Your task to perform on an android device: Add jbl flip 4 to the cart on newegg.com Image 0: 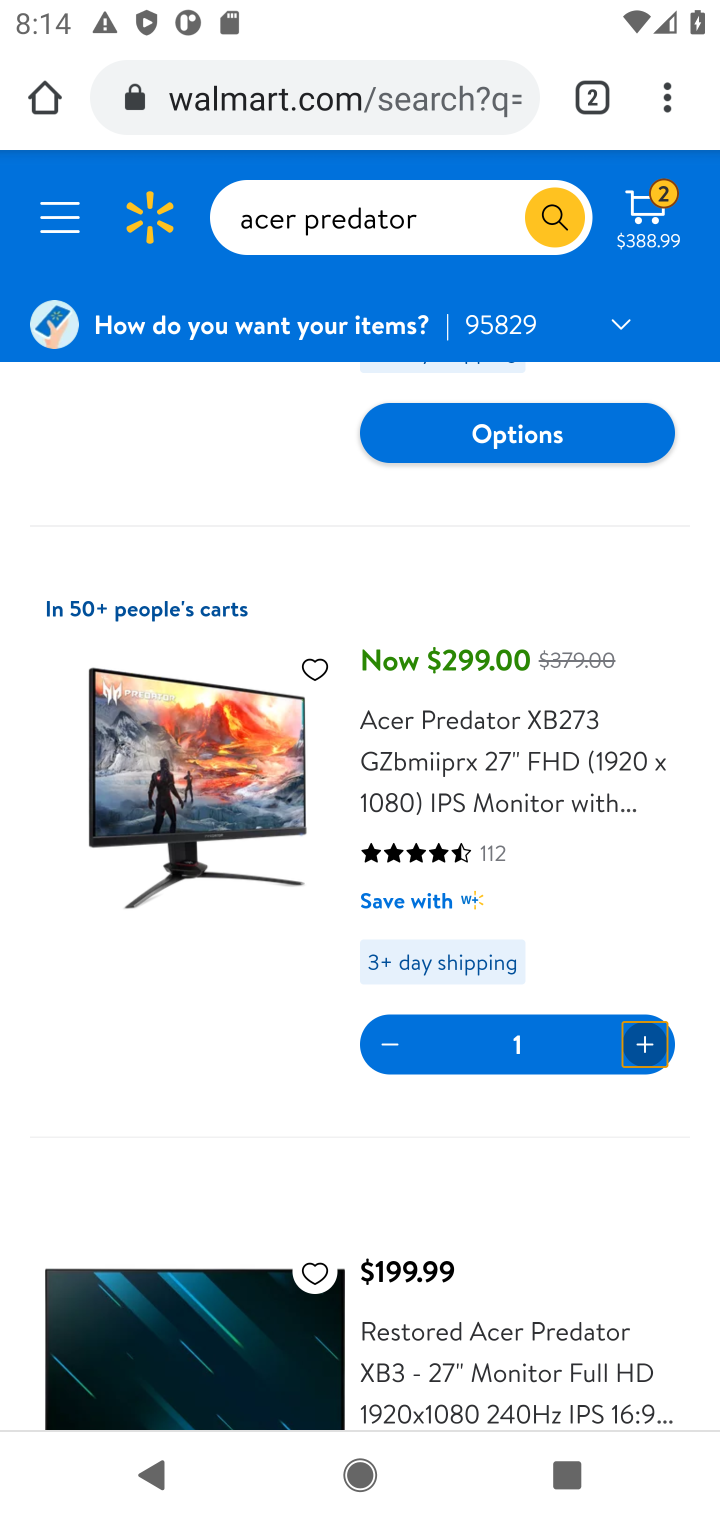
Step 0: click (315, 107)
Your task to perform on an android device: Add jbl flip 4 to the cart on newegg.com Image 1: 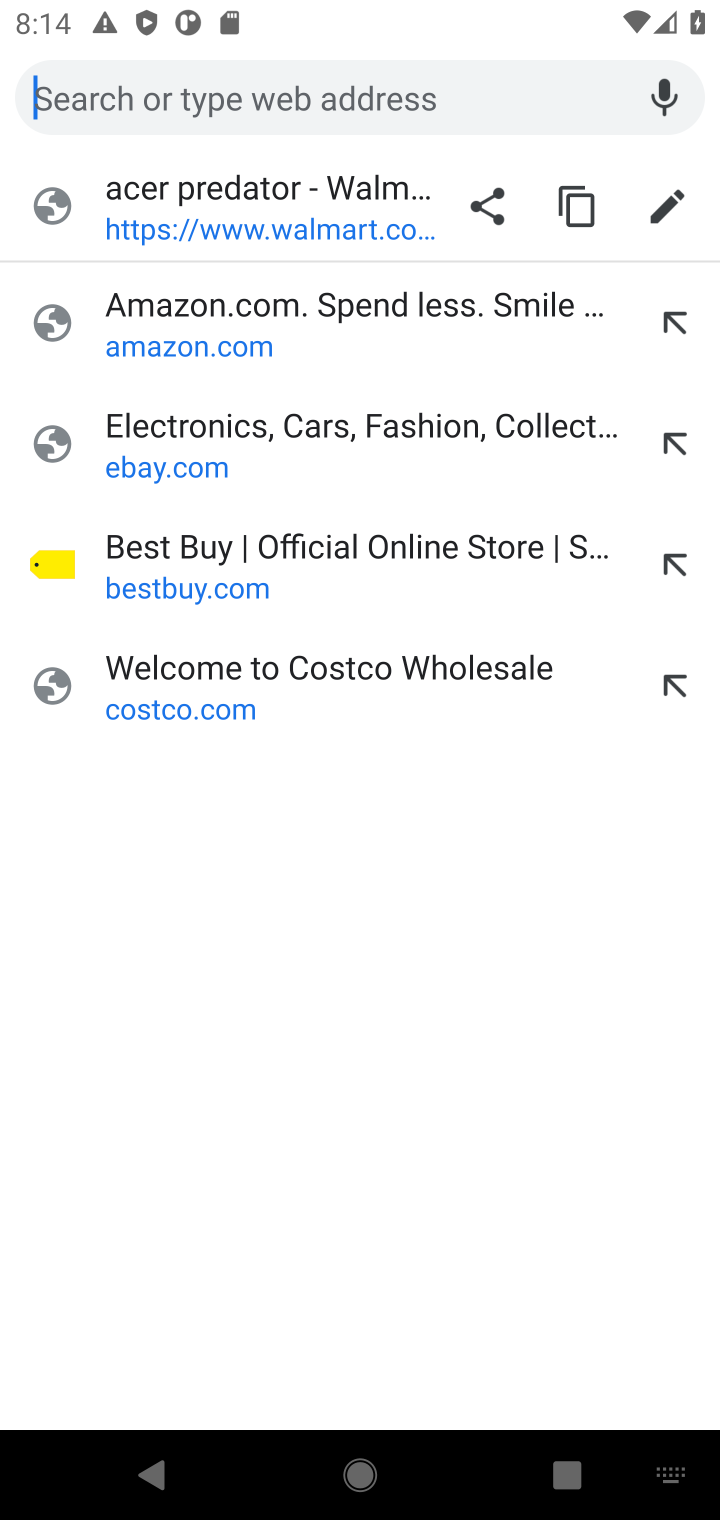
Step 1: type "newegg.com"
Your task to perform on an android device: Add jbl flip 4 to the cart on newegg.com Image 2: 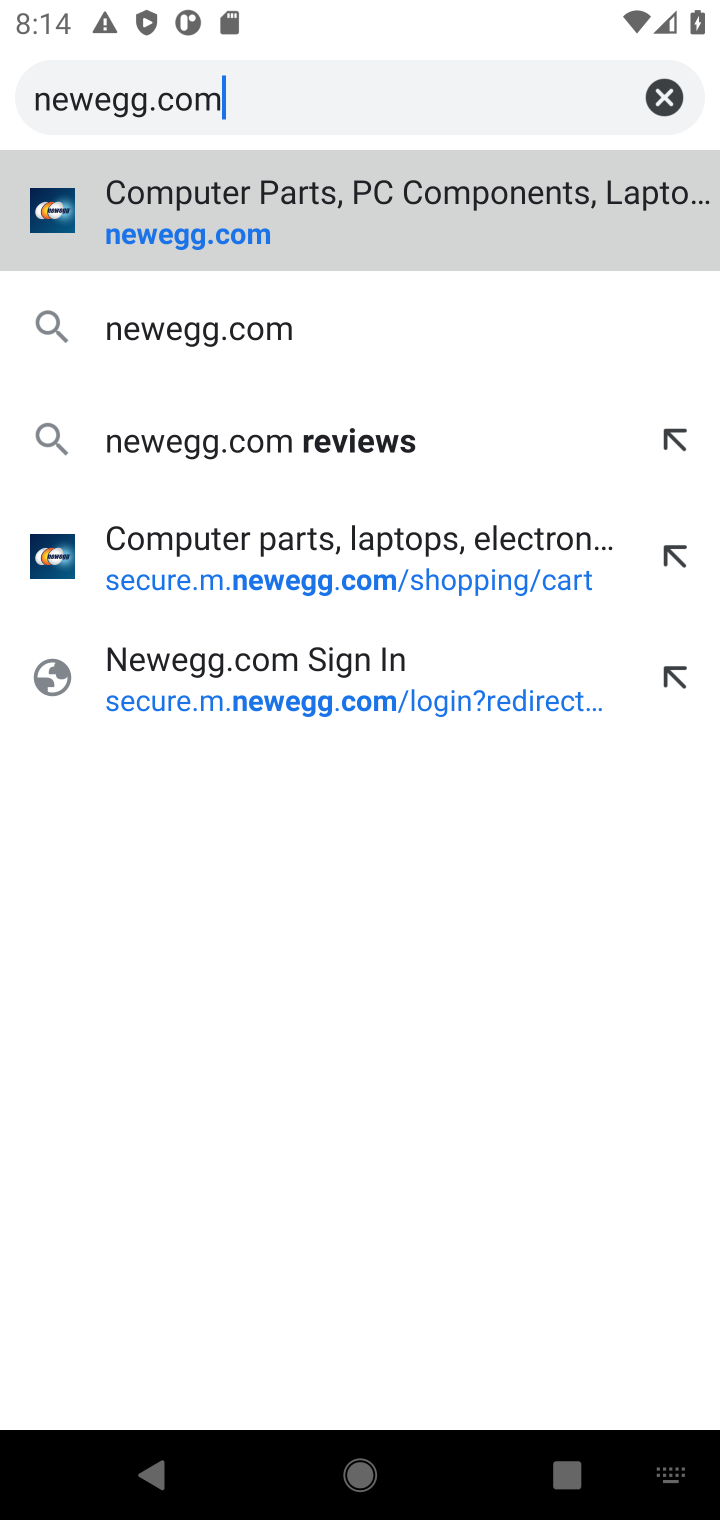
Step 2: click (189, 239)
Your task to perform on an android device: Add jbl flip 4 to the cart on newegg.com Image 3: 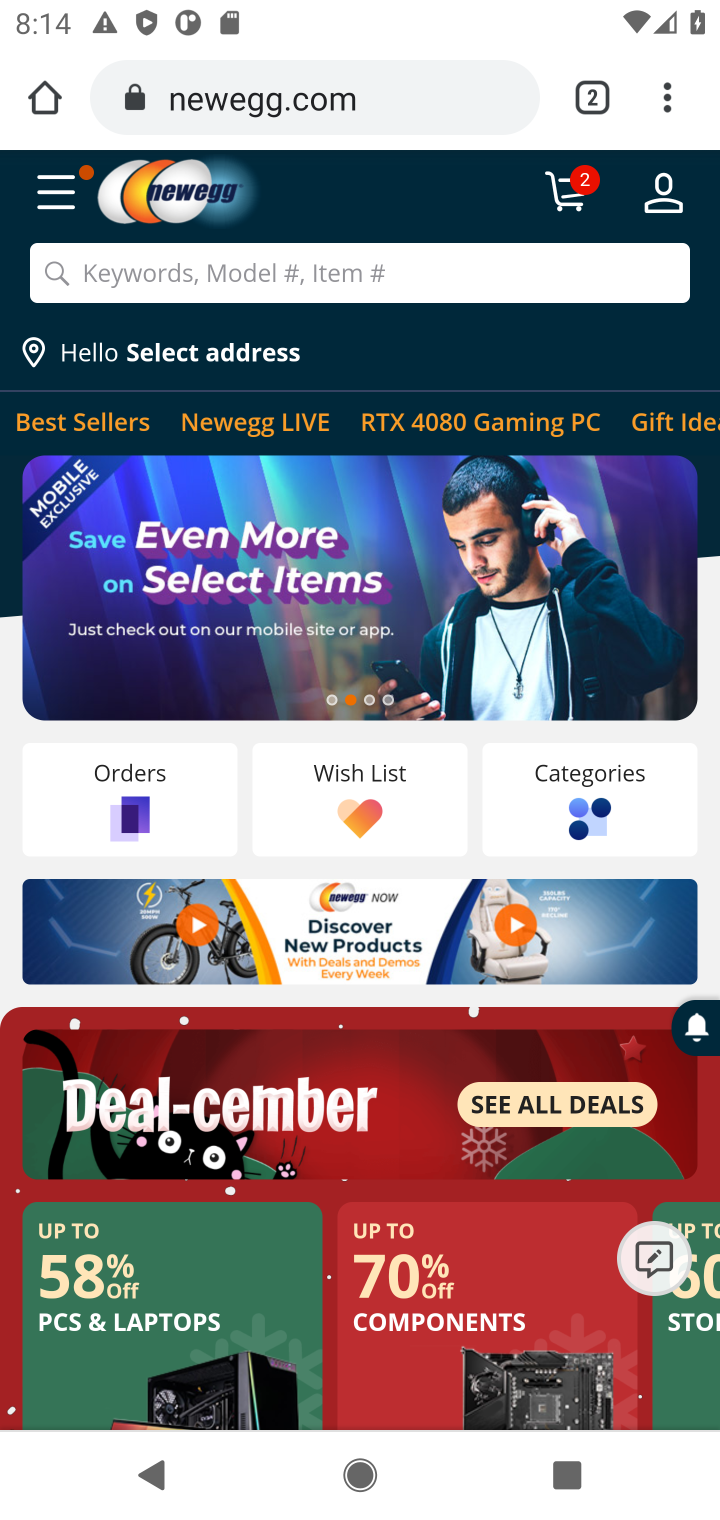
Step 3: click (122, 267)
Your task to perform on an android device: Add jbl flip 4 to the cart on newegg.com Image 4: 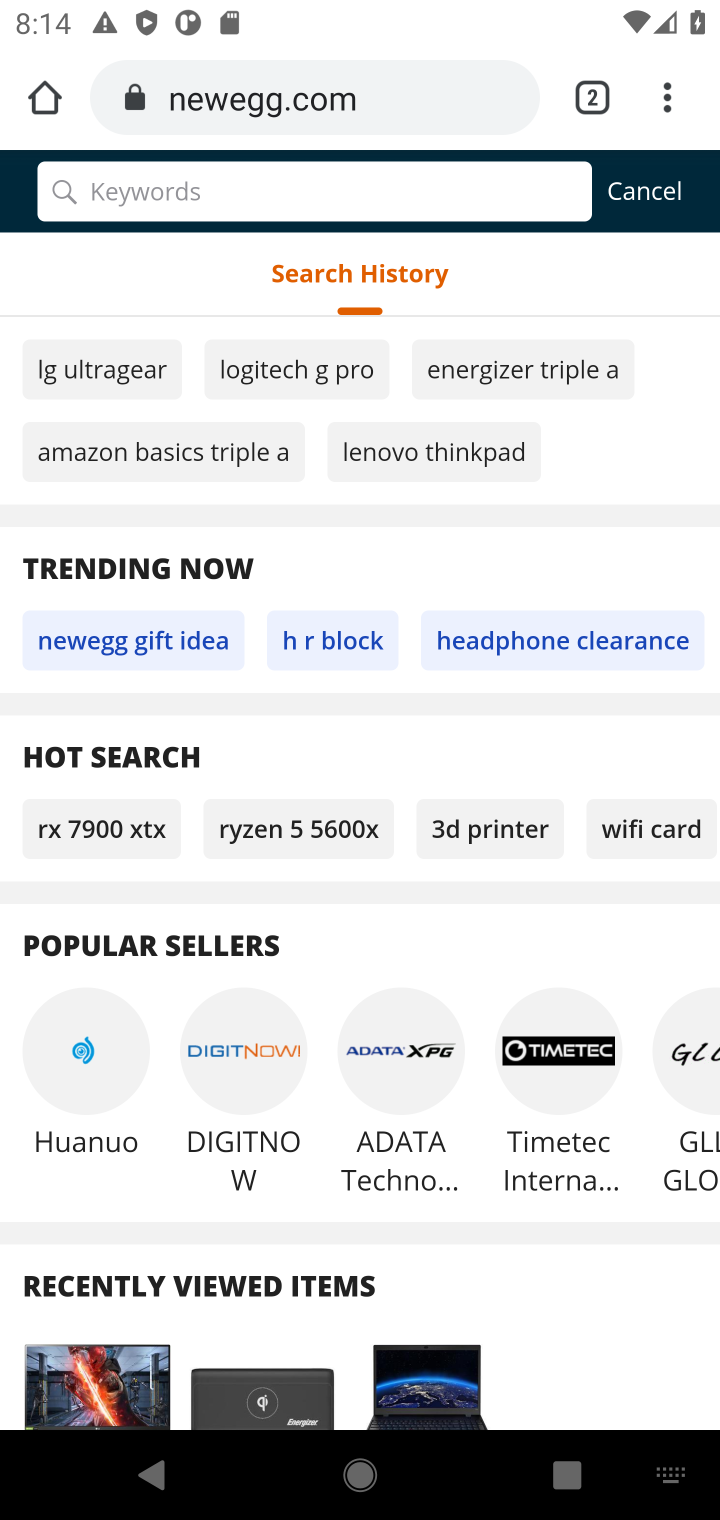
Step 4: type " jbl flip 4"
Your task to perform on an android device: Add jbl flip 4 to the cart on newegg.com Image 5: 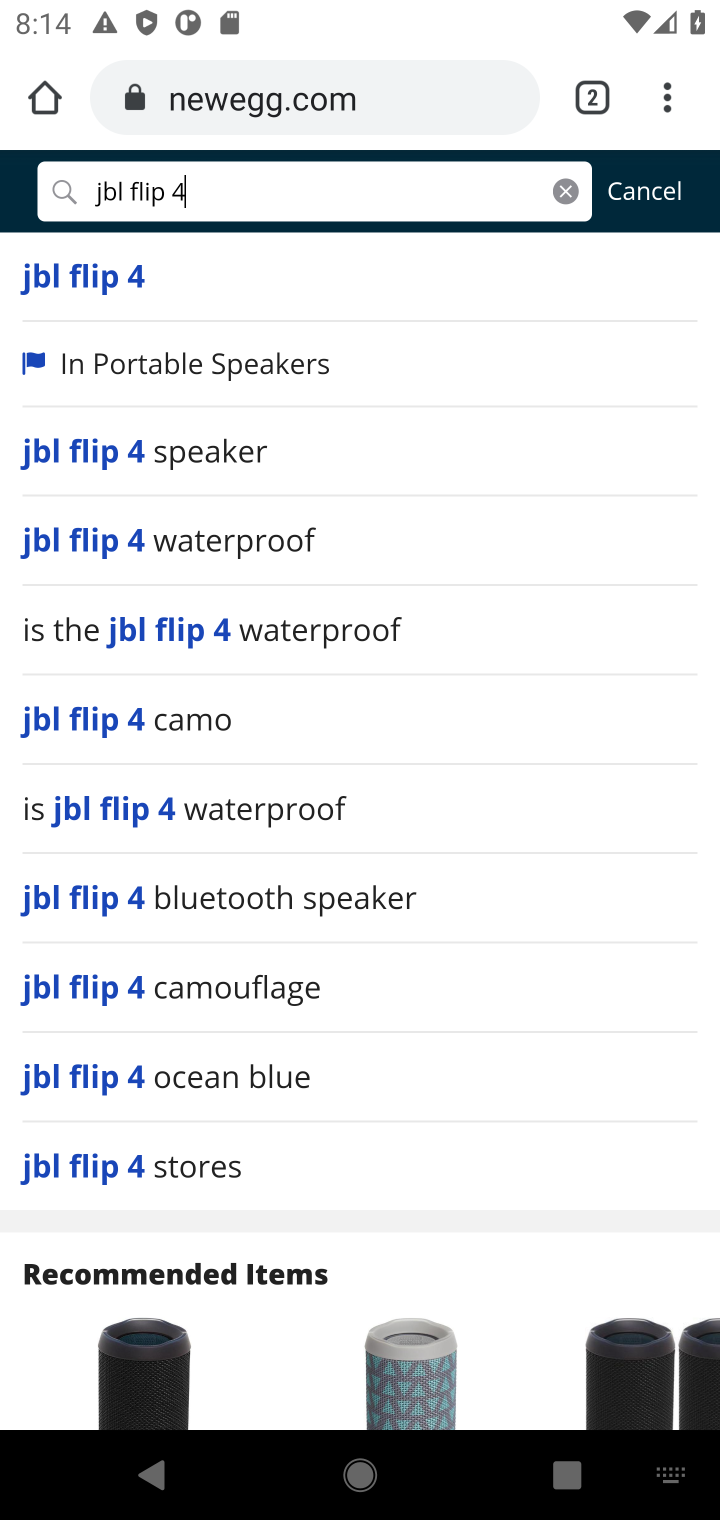
Step 5: click (89, 276)
Your task to perform on an android device: Add jbl flip 4 to the cart on newegg.com Image 6: 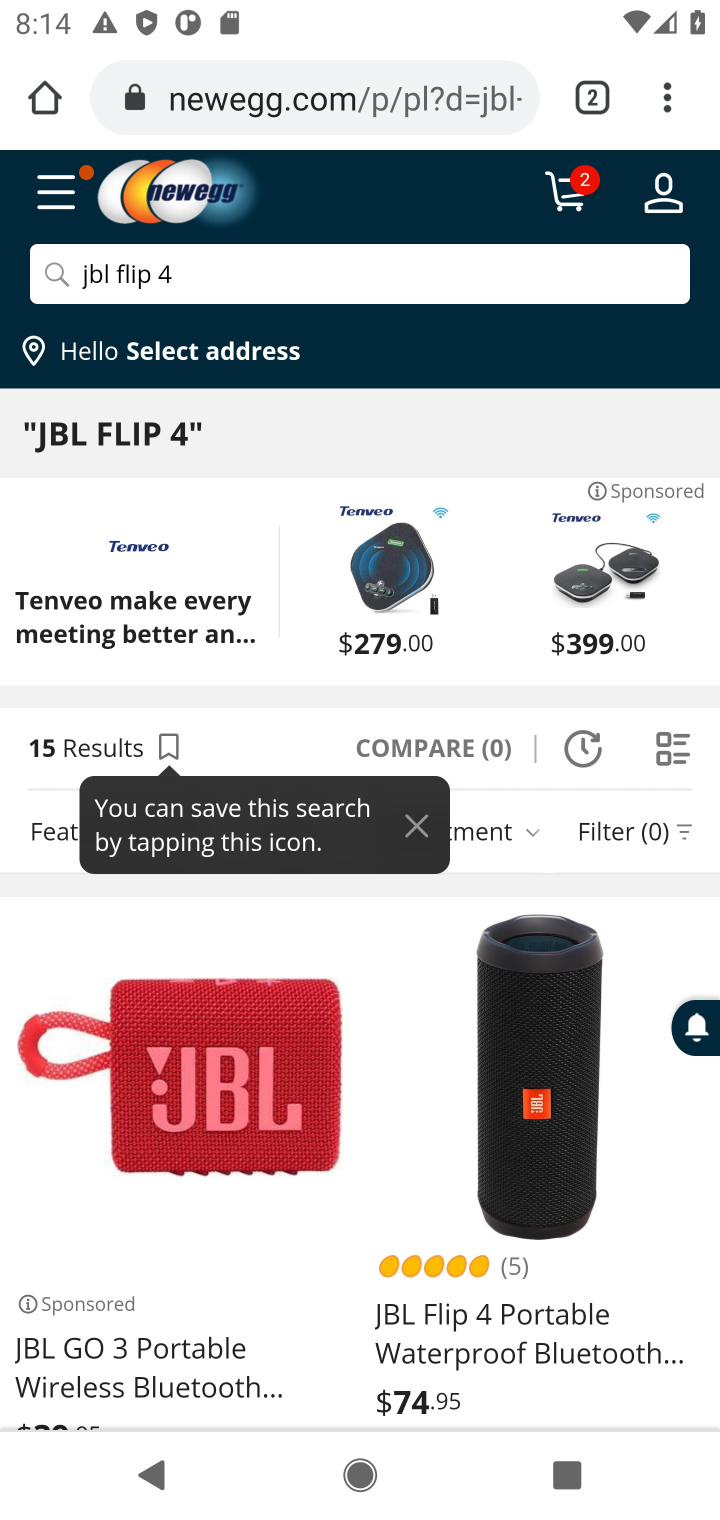
Step 6: drag from (204, 969) to (199, 640)
Your task to perform on an android device: Add jbl flip 4 to the cart on newegg.com Image 7: 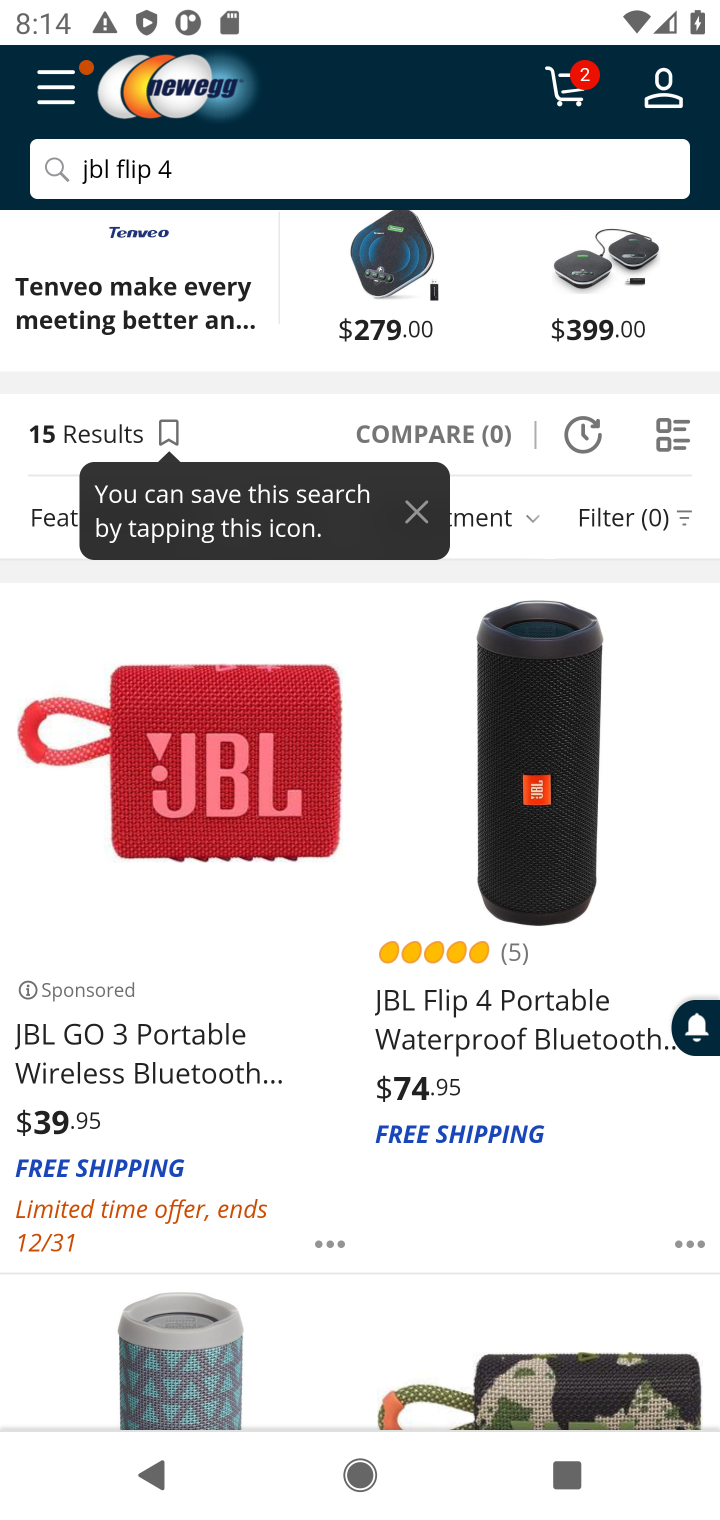
Step 7: click (481, 1033)
Your task to perform on an android device: Add jbl flip 4 to the cart on newegg.com Image 8: 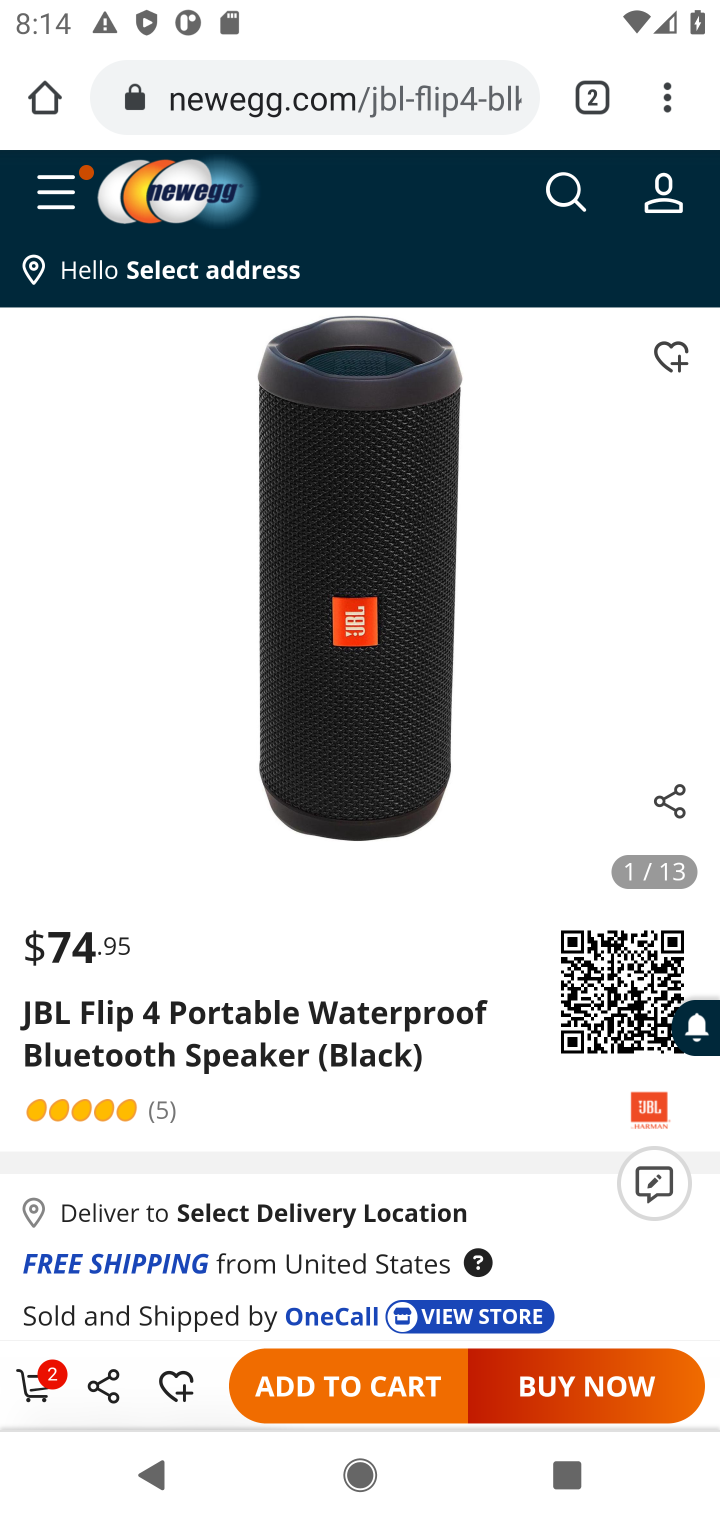
Step 8: click (343, 1399)
Your task to perform on an android device: Add jbl flip 4 to the cart on newegg.com Image 9: 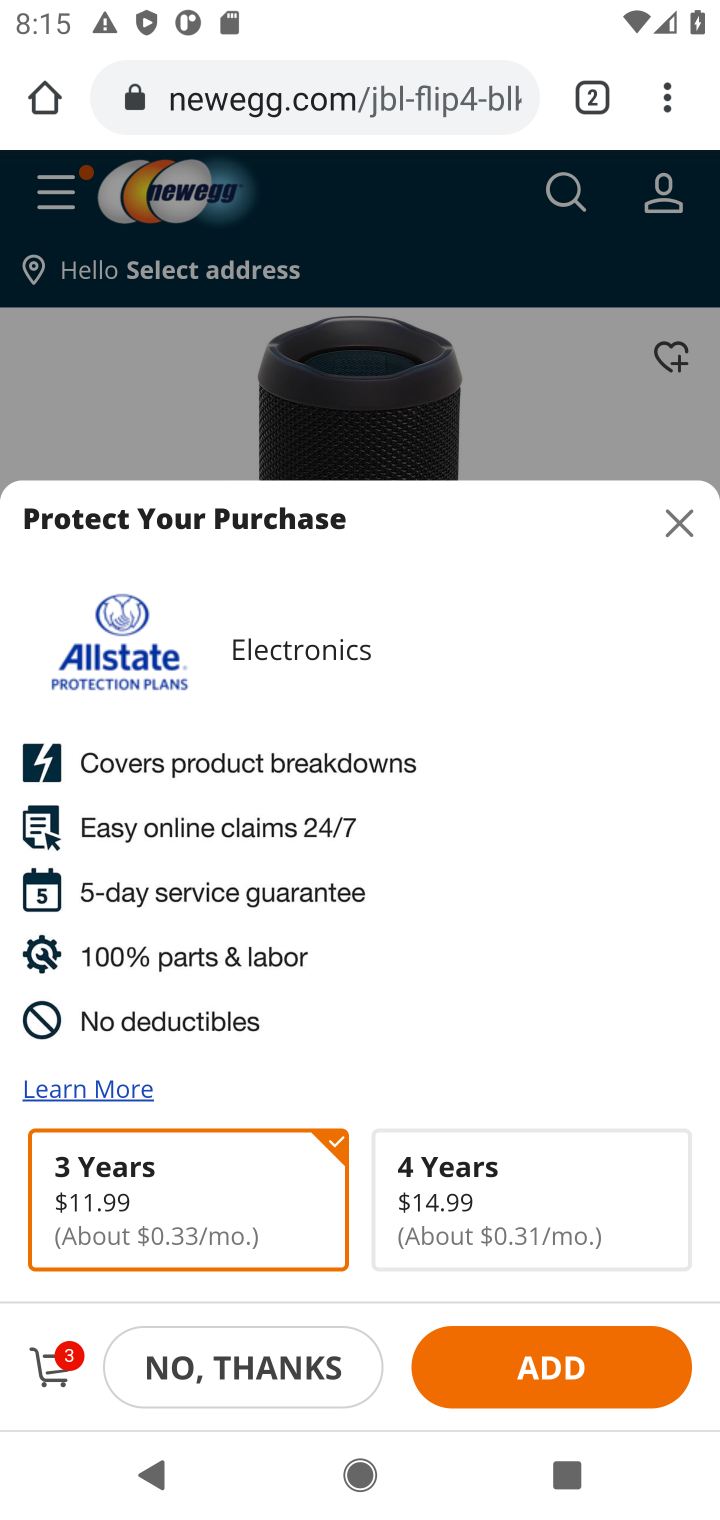
Step 9: task complete